Your task to perform on an android device: Open sound settings Image 0: 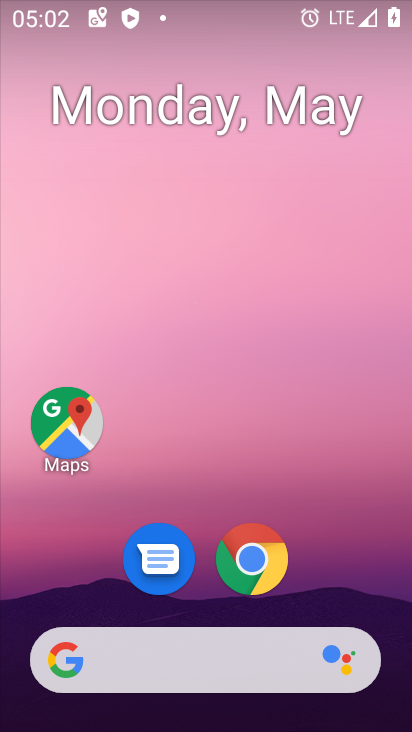
Step 0: drag from (355, 531) to (332, 87)
Your task to perform on an android device: Open sound settings Image 1: 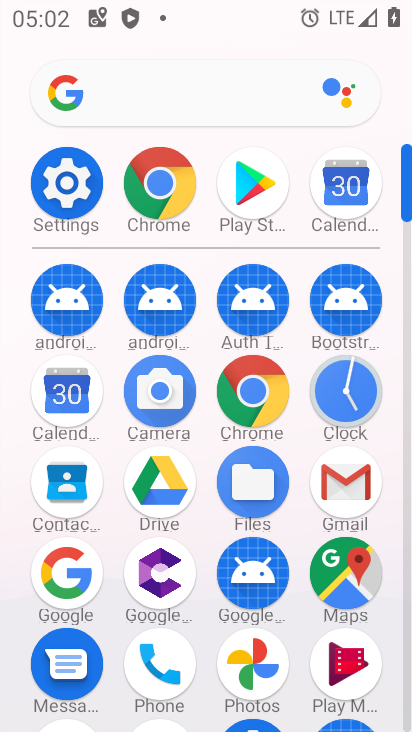
Step 1: click (74, 197)
Your task to perform on an android device: Open sound settings Image 2: 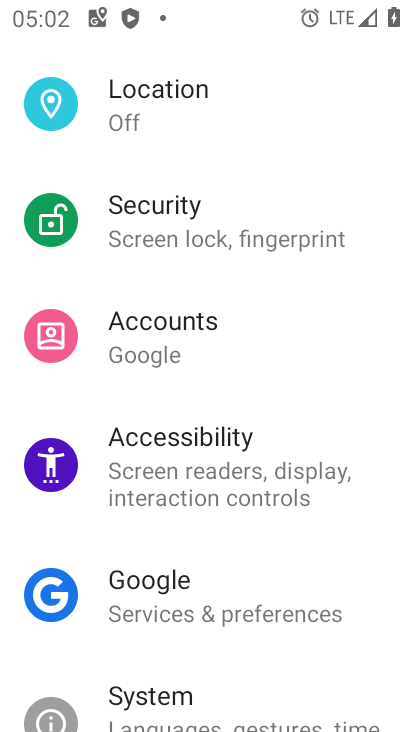
Step 2: drag from (247, 208) to (263, 649)
Your task to perform on an android device: Open sound settings Image 3: 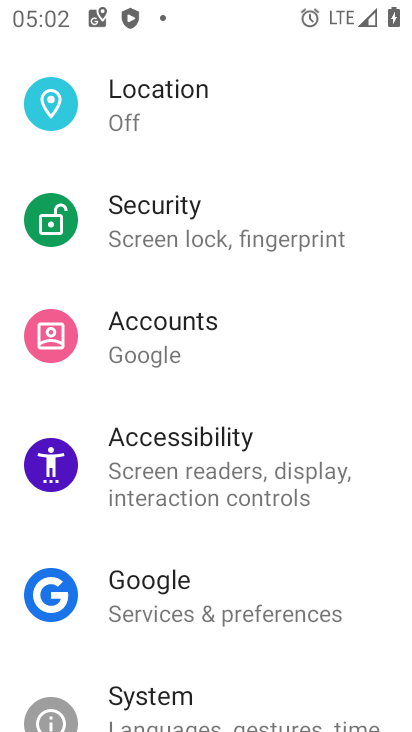
Step 3: drag from (303, 668) to (280, 125)
Your task to perform on an android device: Open sound settings Image 4: 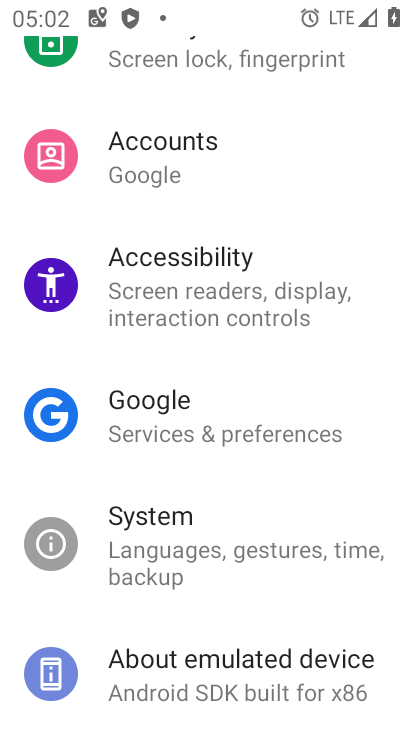
Step 4: drag from (306, 175) to (309, 726)
Your task to perform on an android device: Open sound settings Image 5: 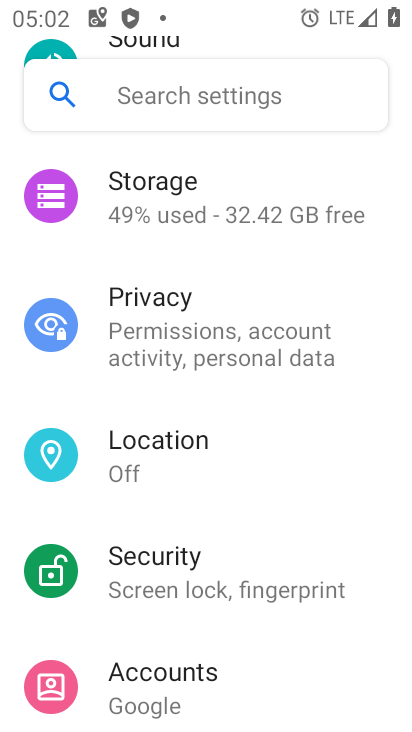
Step 5: drag from (302, 281) to (321, 638)
Your task to perform on an android device: Open sound settings Image 6: 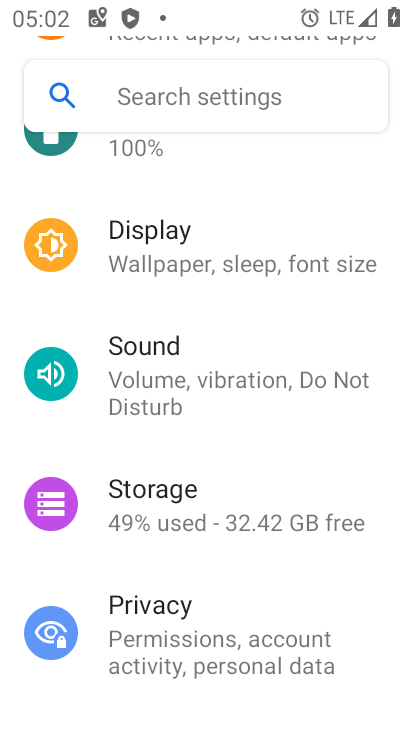
Step 6: click (248, 394)
Your task to perform on an android device: Open sound settings Image 7: 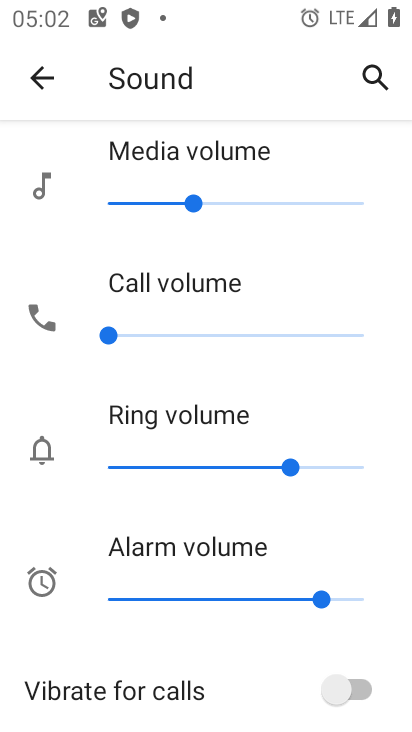
Step 7: task complete